Your task to perform on an android device: Open calendar and show me the first week of next month Image 0: 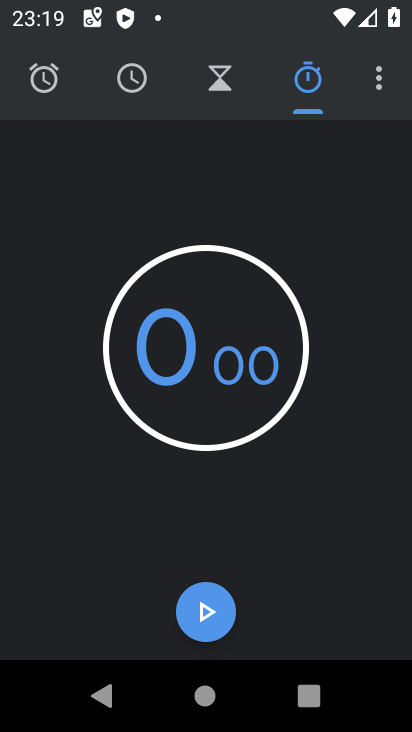
Step 0: press home button
Your task to perform on an android device: Open calendar and show me the first week of next month Image 1: 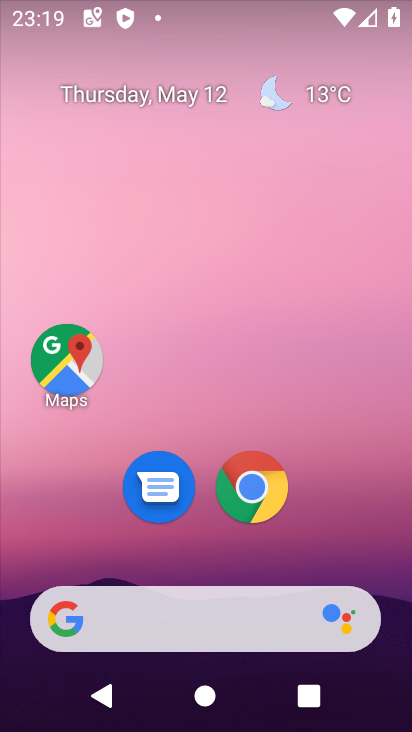
Step 1: click (175, 97)
Your task to perform on an android device: Open calendar and show me the first week of next month Image 2: 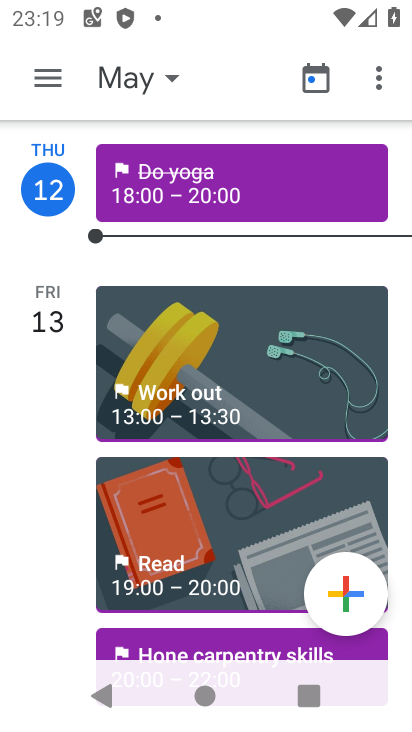
Step 2: click (162, 70)
Your task to perform on an android device: Open calendar and show me the first week of next month Image 3: 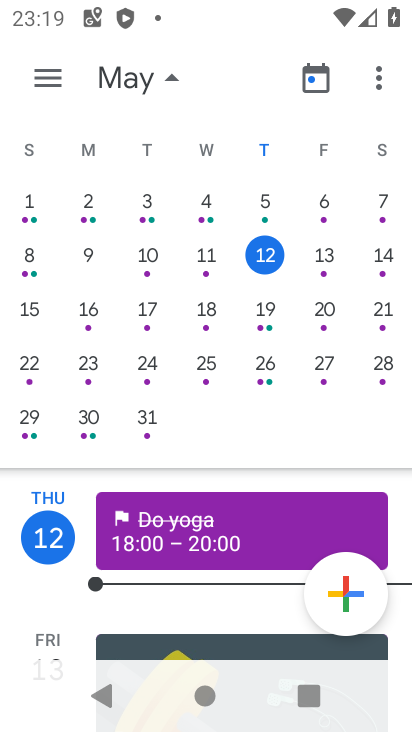
Step 3: task complete